Your task to perform on an android device: toggle airplane mode Image 0: 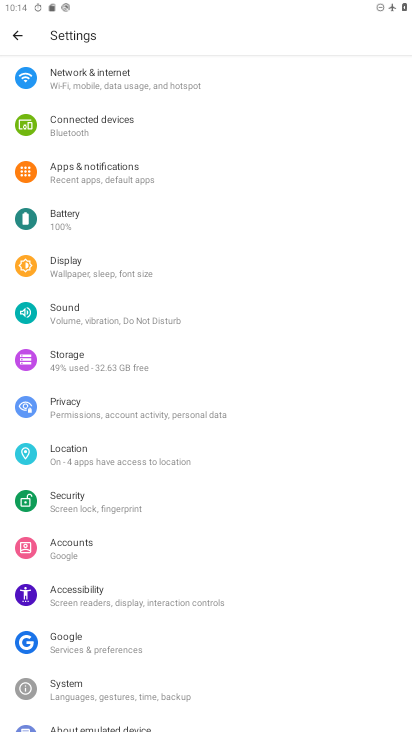
Step 0: click (114, 75)
Your task to perform on an android device: toggle airplane mode Image 1: 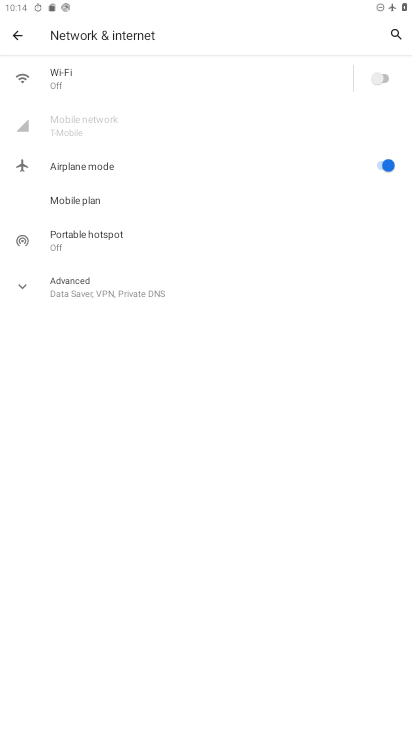
Step 1: click (379, 159)
Your task to perform on an android device: toggle airplane mode Image 2: 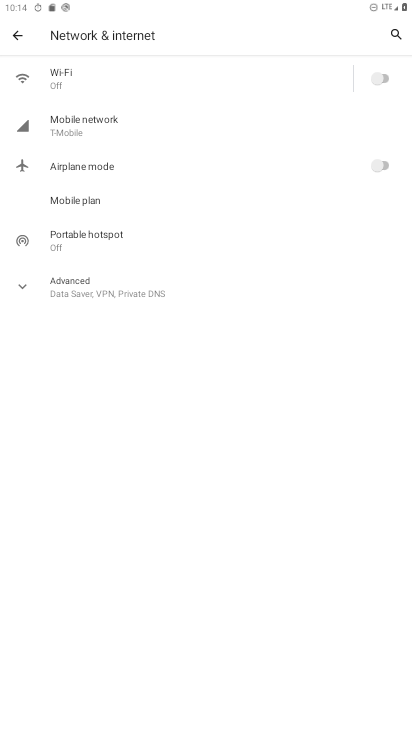
Step 2: task complete